Your task to perform on an android device: Show me the alarms in the clock app Image 0: 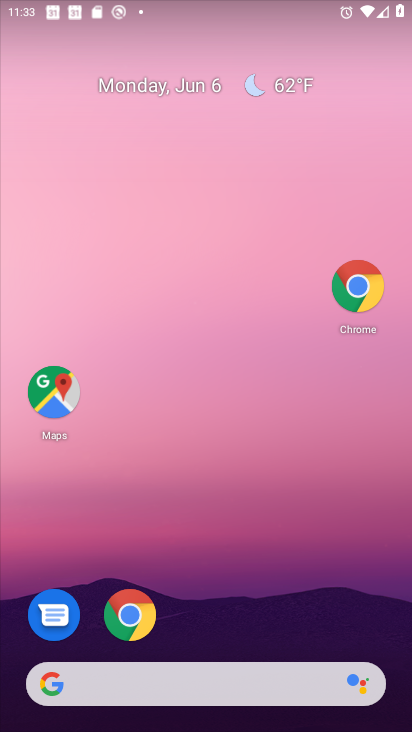
Step 0: drag from (241, 609) to (144, 16)
Your task to perform on an android device: Show me the alarms in the clock app Image 1: 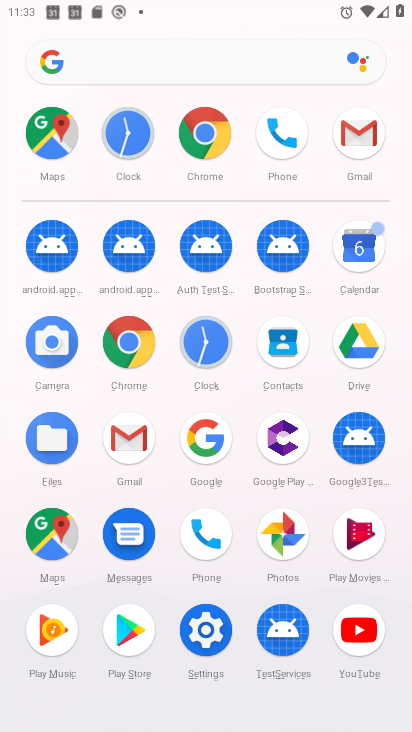
Step 1: click (200, 334)
Your task to perform on an android device: Show me the alarms in the clock app Image 2: 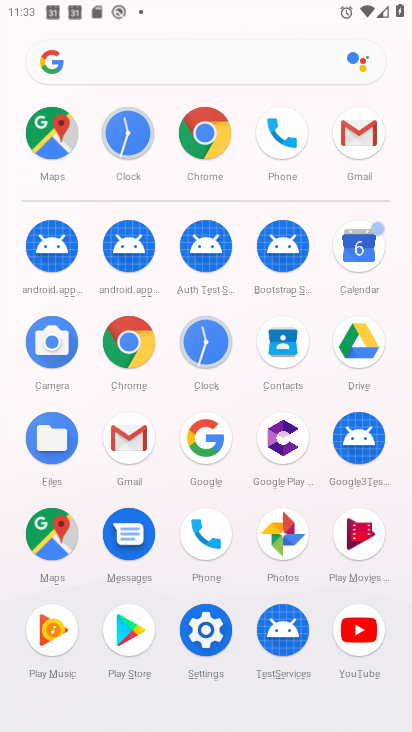
Step 2: click (200, 335)
Your task to perform on an android device: Show me the alarms in the clock app Image 3: 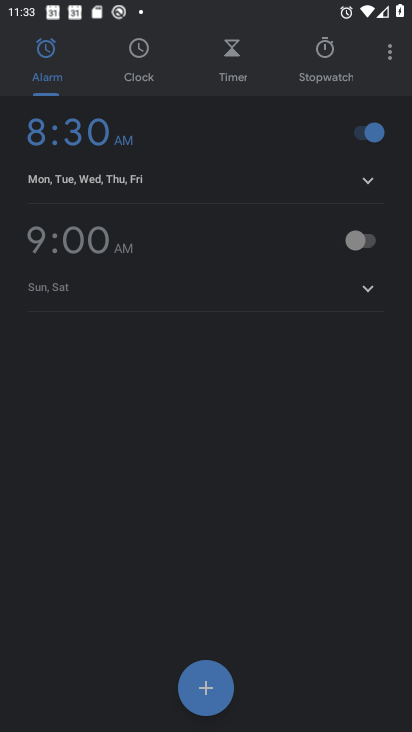
Step 3: click (200, 350)
Your task to perform on an android device: Show me the alarms in the clock app Image 4: 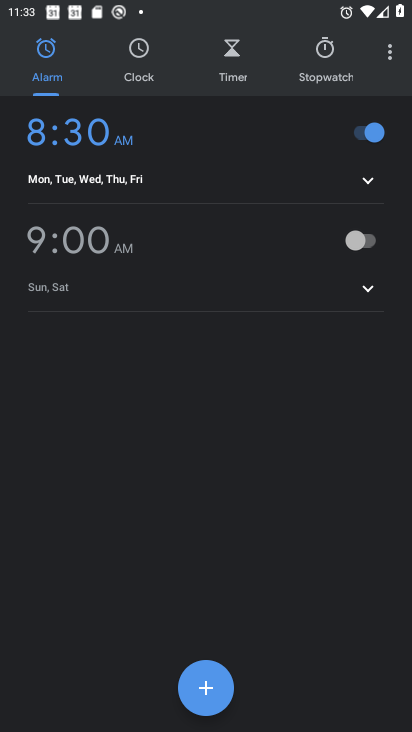
Step 4: click (204, 354)
Your task to perform on an android device: Show me the alarms in the clock app Image 5: 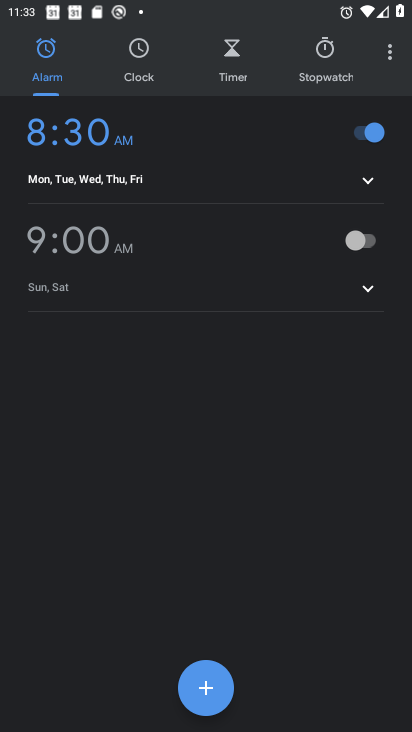
Step 5: task complete